Your task to perform on an android device: Turn off the flashlight Image 0: 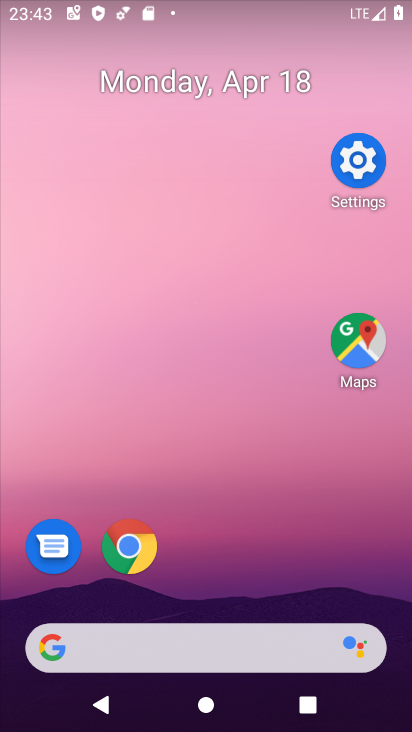
Step 0: drag from (338, 621) to (175, 193)
Your task to perform on an android device: Turn off the flashlight Image 1: 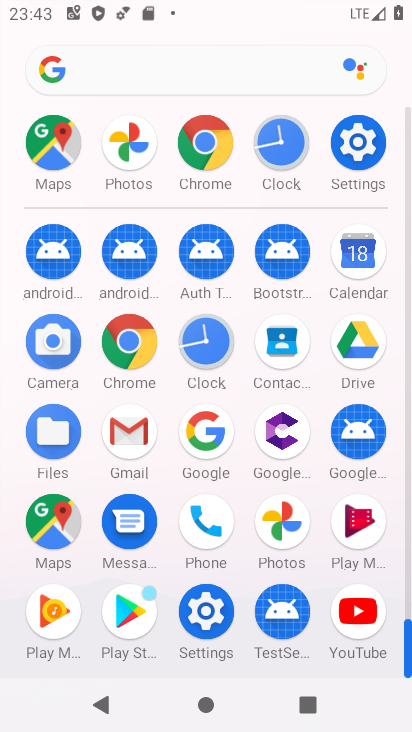
Step 1: task complete